Your task to perform on an android device: clear all cookies in the chrome app Image 0: 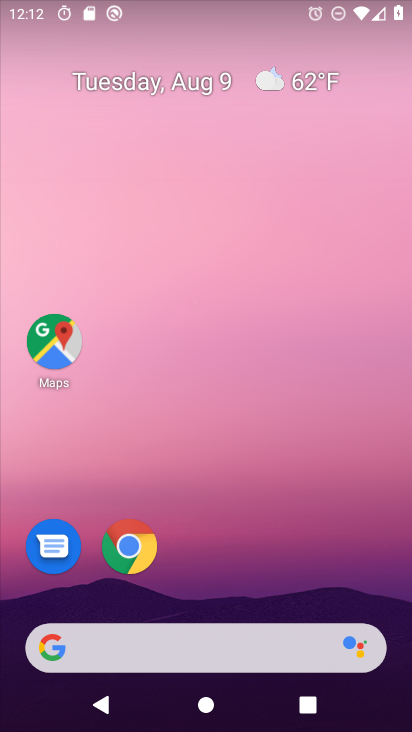
Step 0: press home button
Your task to perform on an android device: clear all cookies in the chrome app Image 1: 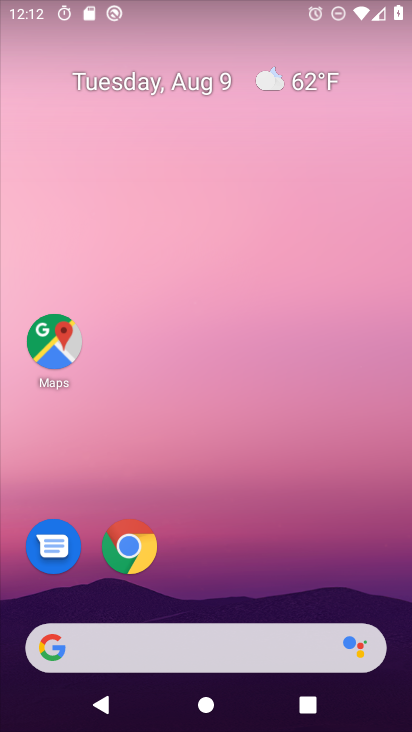
Step 1: drag from (202, 579) to (232, 47)
Your task to perform on an android device: clear all cookies in the chrome app Image 2: 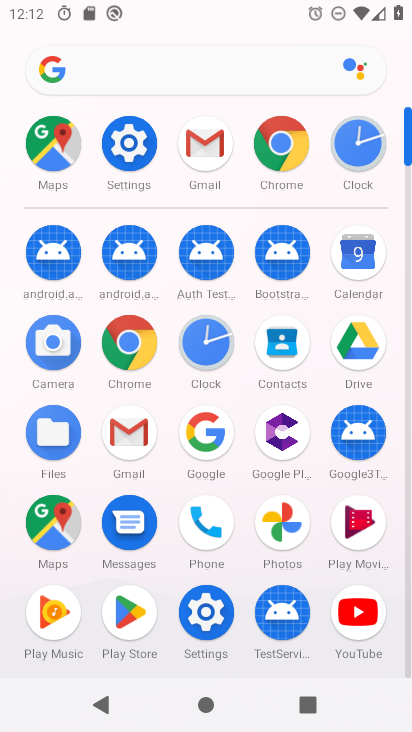
Step 2: press home button
Your task to perform on an android device: clear all cookies in the chrome app Image 3: 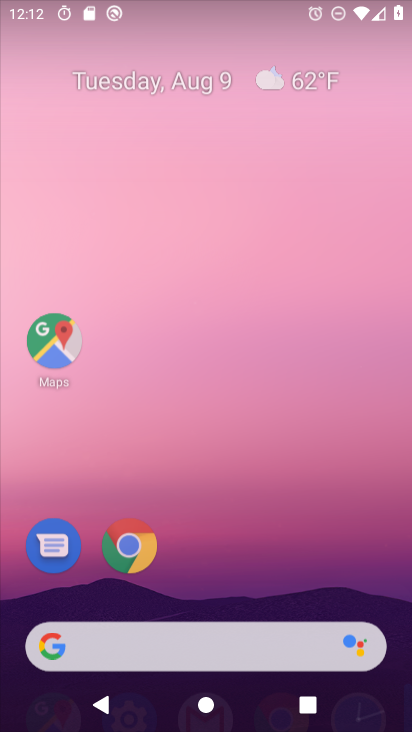
Step 3: press home button
Your task to perform on an android device: clear all cookies in the chrome app Image 4: 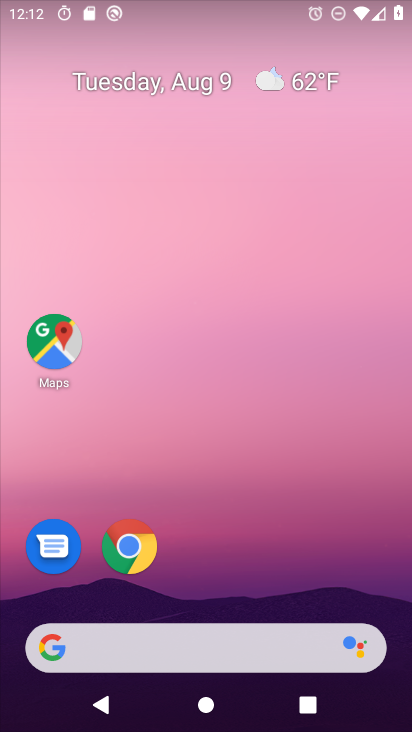
Step 4: press home button
Your task to perform on an android device: clear all cookies in the chrome app Image 5: 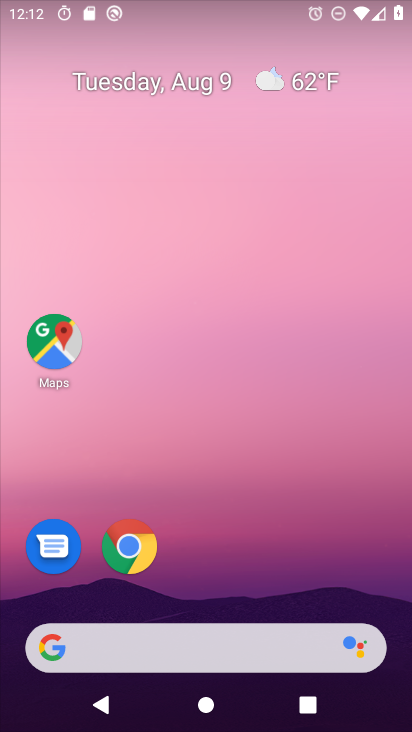
Step 5: click (124, 542)
Your task to perform on an android device: clear all cookies in the chrome app Image 6: 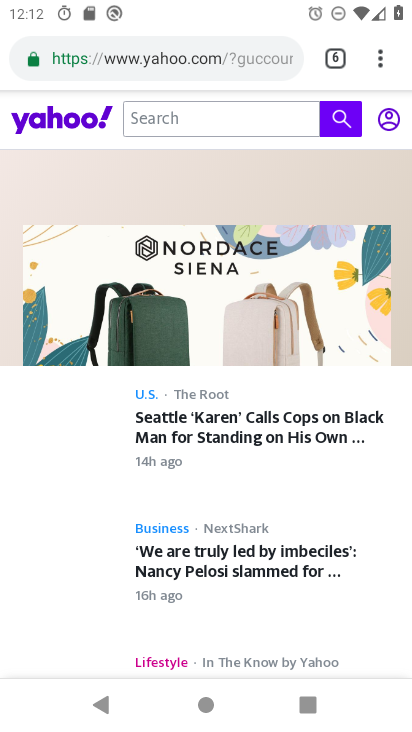
Step 6: click (376, 59)
Your task to perform on an android device: clear all cookies in the chrome app Image 7: 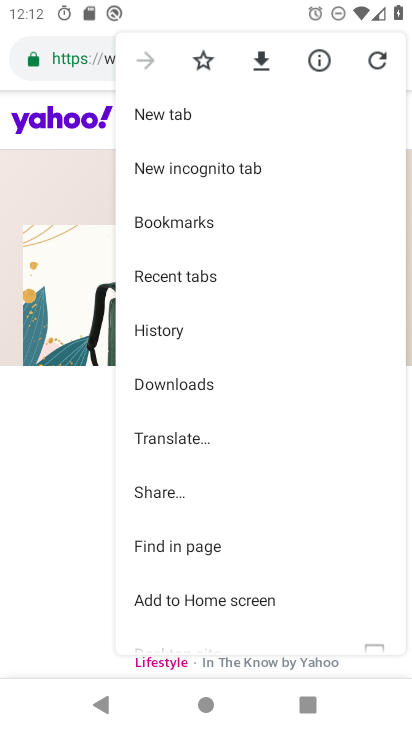
Step 7: click (205, 333)
Your task to perform on an android device: clear all cookies in the chrome app Image 8: 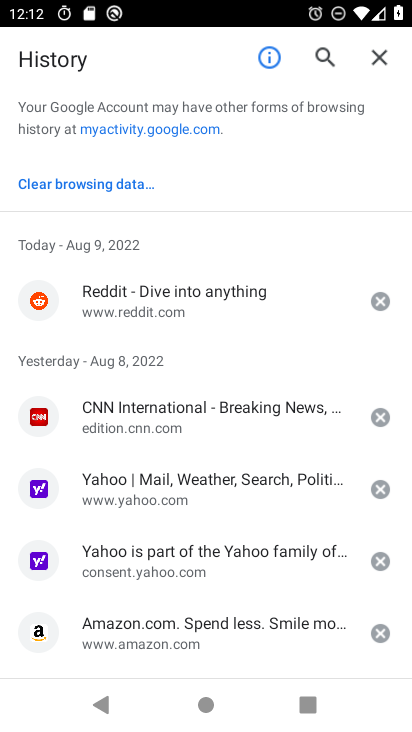
Step 8: click (97, 183)
Your task to perform on an android device: clear all cookies in the chrome app Image 9: 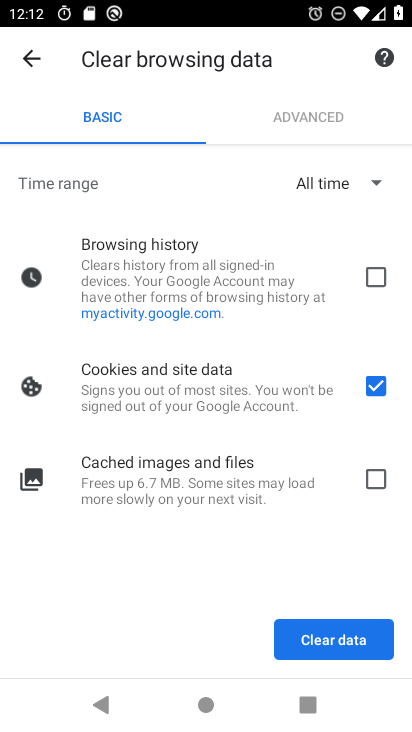
Step 9: click (339, 632)
Your task to perform on an android device: clear all cookies in the chrome app Image 10: 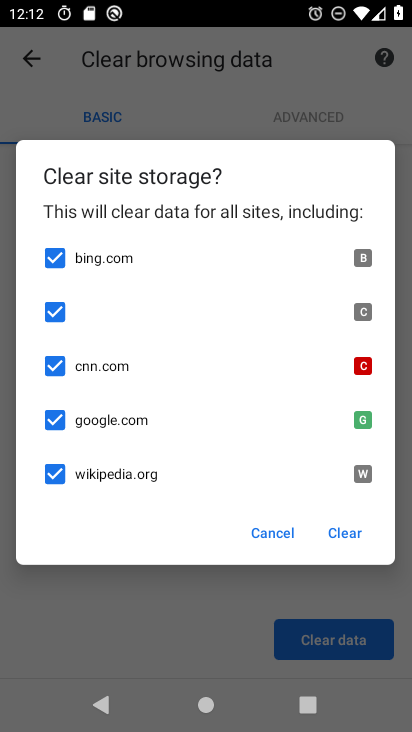
Step 10: click (334, 533)
Your task to perform on an android device: clear all cookies in the chrome app Image 11: 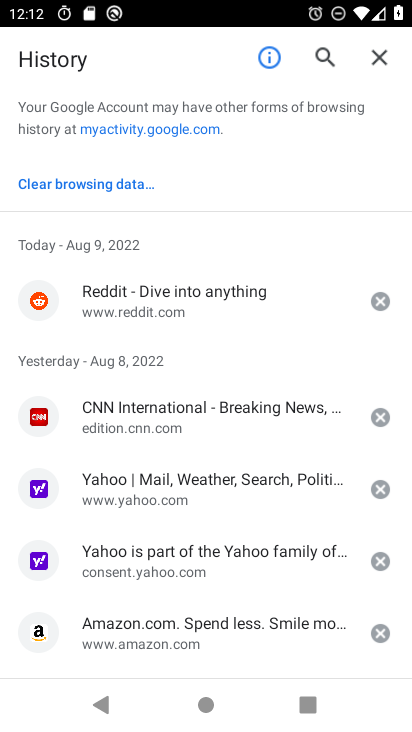
Step 11: task complete